Your task to perform on an android device: turn on data saver in the chrome app Image 0: 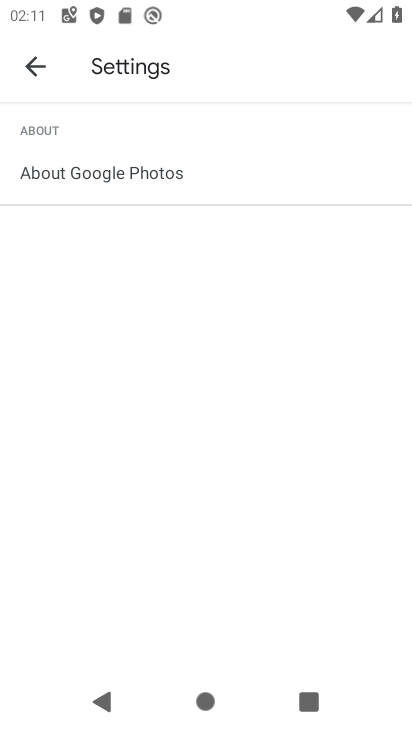
Step 0: press home button
Your task to perform on an android device: turn on data saver in the chrome app Image 1: 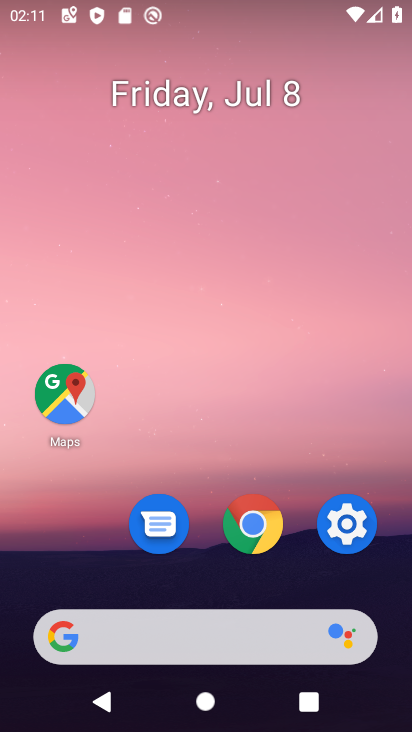
Step 1: click (237, 523)
Your task to perform on an android device: turn on data saver in the chrome app Image 2: 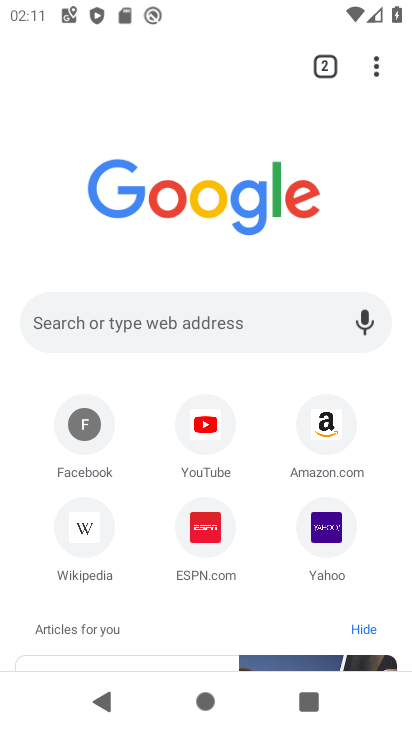
Step 2: click (375, 79)
Your task to perform on an android device: turn on data saver in the chrome app Image 3: 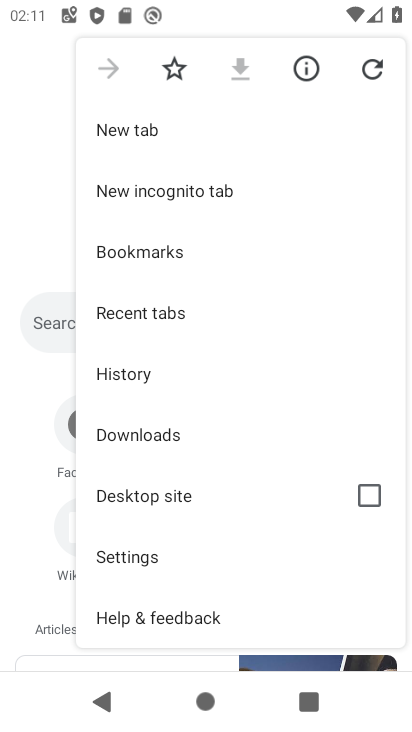
Step 3: click (118, 556)
Your task to perform on an android device: turn on data saver in the chrome app Image 4: 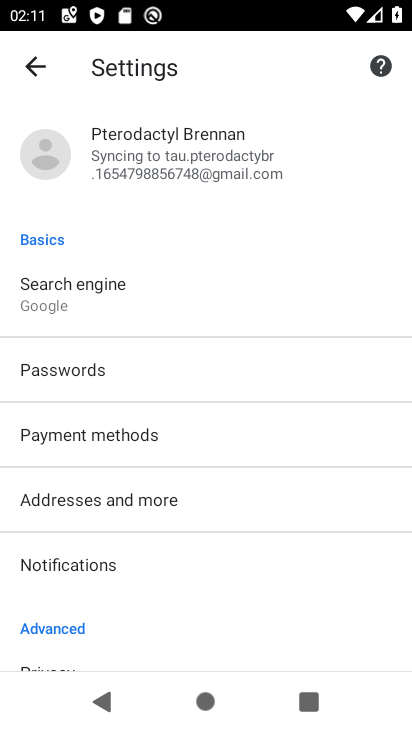
Step 4: drag from (73, 521) to (154, 365)
Your task to perform on an android device: turn on data saver in the chrome app Image 5: 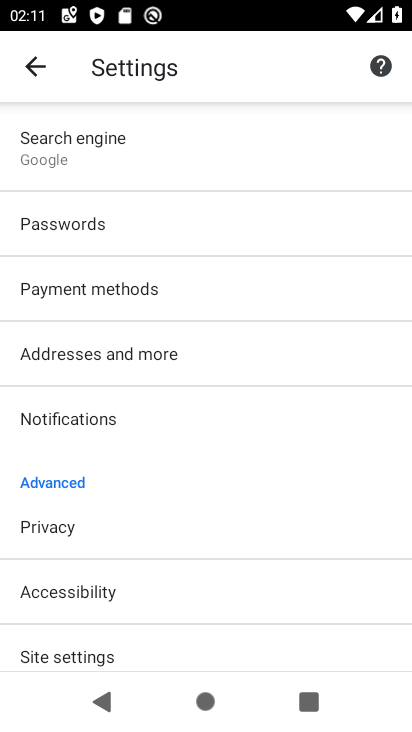
Step 5: drag from (65, 630) to (165, 425)
Your task to perform on an android device: turn on data saver in the chrome app Image 6: 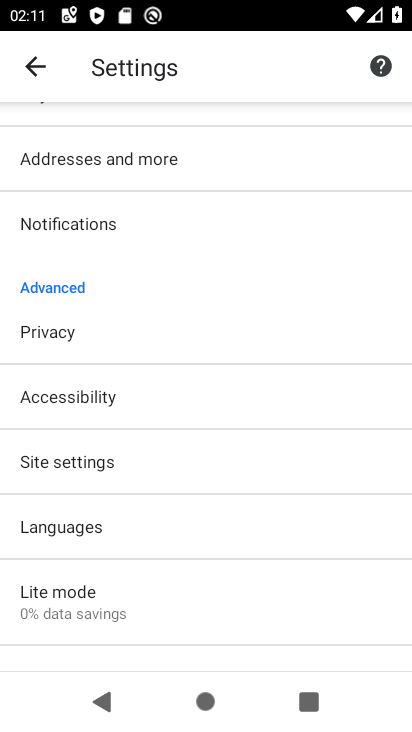
Step 6: click (61, 599)
Your task to perform on an android device: turn on data saver in the chrome app Image 7: 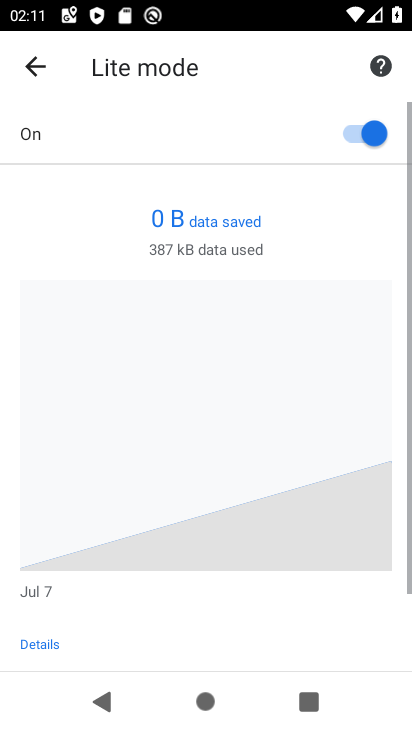
Step 7: click (366, 131)
Your task to perform on an android device: turn on data saver in the chrome app Image 8: 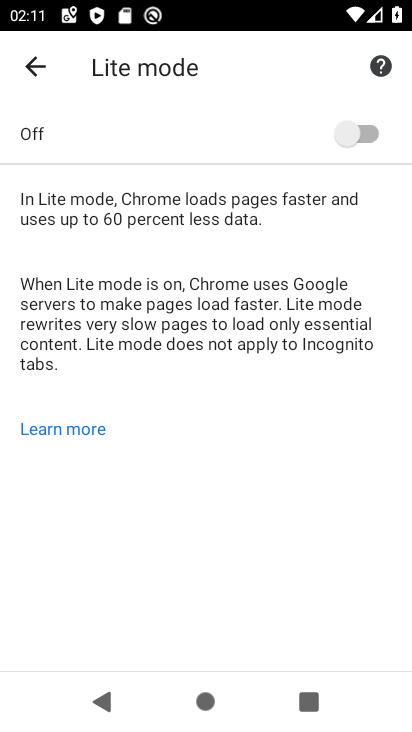
Step 8: click (366, 131)
Your task to perform on an android device: turn on data saver in the chrome app Image 9: 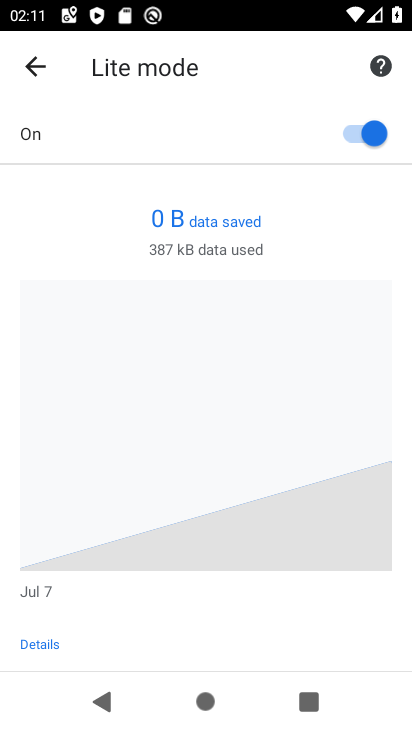
Step 9: task complete